Your task to perform on an android device: Open Youtube and go to the subscriptions tab Image 0: 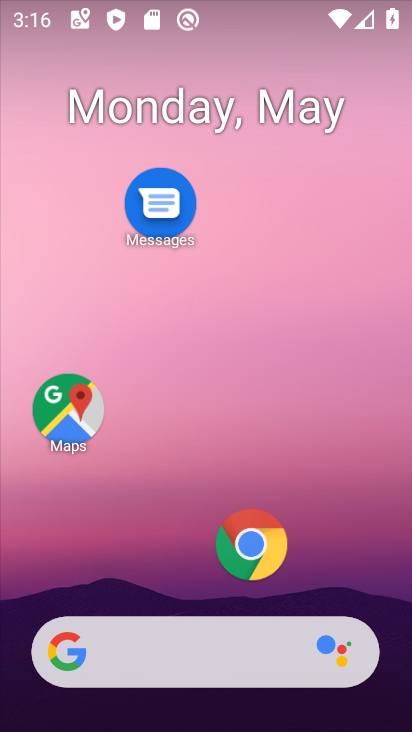
Step 0: drag from (183, 568) to (172, 256)
Your task to perform on an android device: Open Youtube and go to the subscriptions tab Image 1: 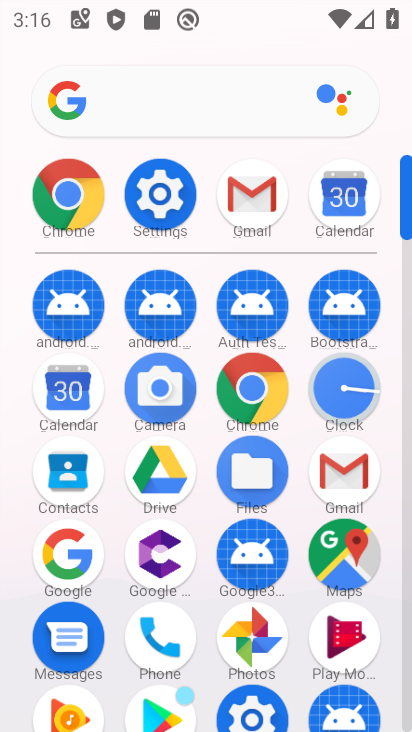
Step 1: drag from (209, 615) to (233, 236)
Your task to perform on an android device: Open Youtube and go to the subscriptions tab Image 2: 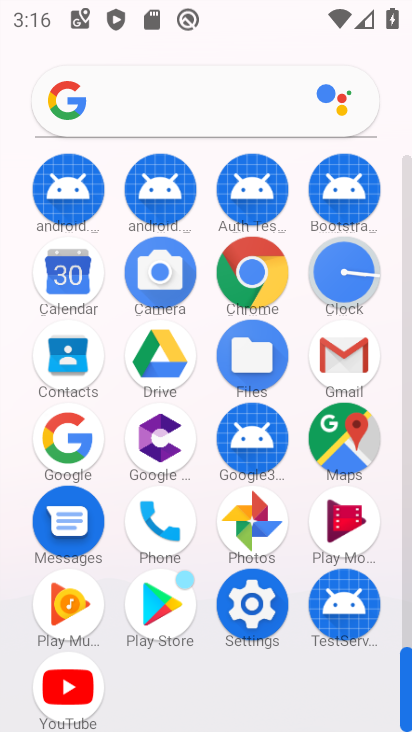
Step 2: click (65, 669)
Your task to perform on an android device: Open Youtube and go to the subscriptions tab Image 3: 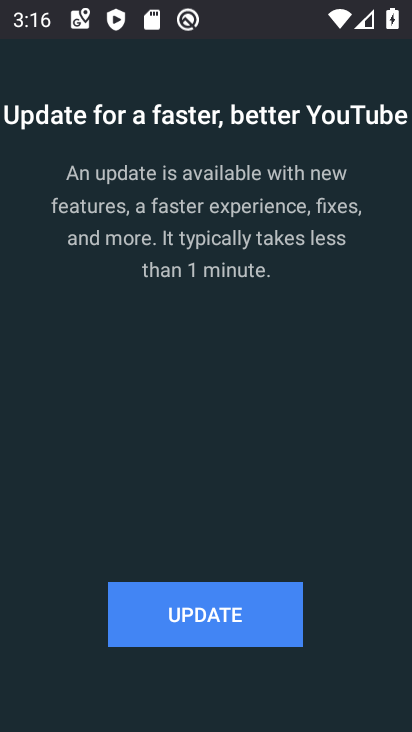
Step 3: click (198, 618)
Your task to perform on an android device: Open Youtube and go to the subscriptions tab Image 4: 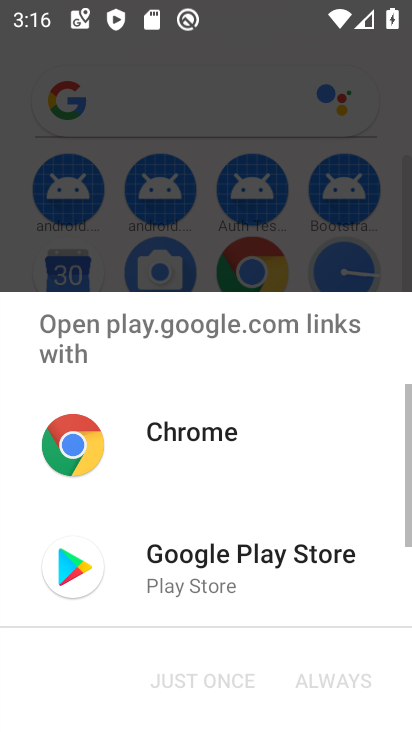
Step 4: click (198, 583)
Your task to perform on an android device: Open Youtube and go to the subscriptions tab Image 5: 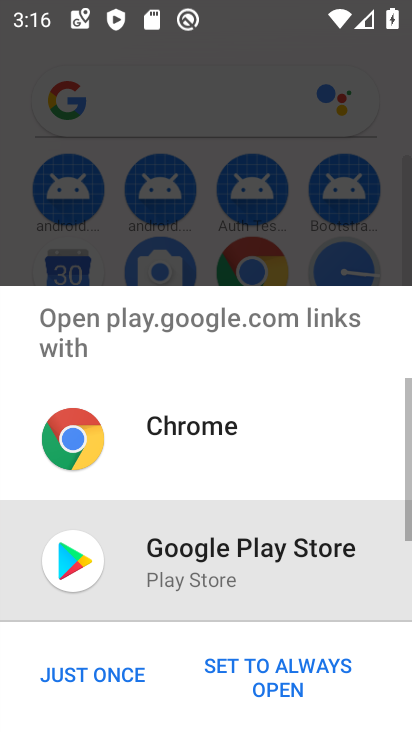
Step 5: click (121, 689)
Your task to perform on an android device: Open Youtube and go to the subscriptions tab Image 6: 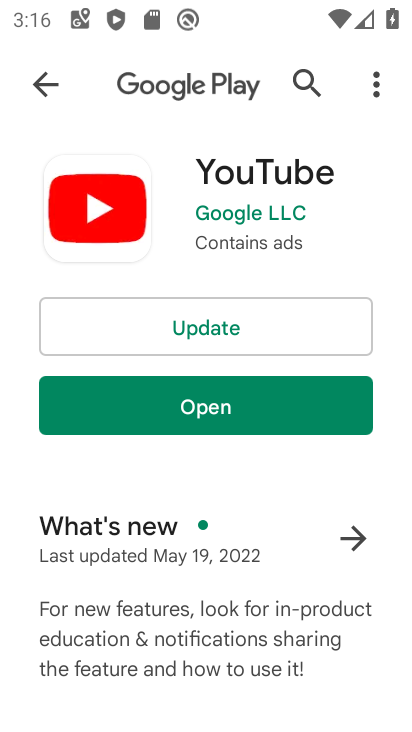
Step 6: click (281, 334)
Your task to perform on an android device: Open Youtube and go to the subscriptions tab Image 7: 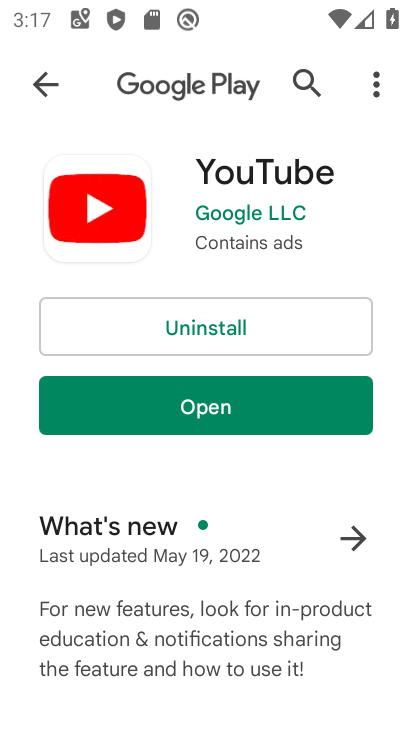
Step 7: click (274, 406)
Your task to perform on an android device: Open Youtube and go to the subscriptions tab Image 8: 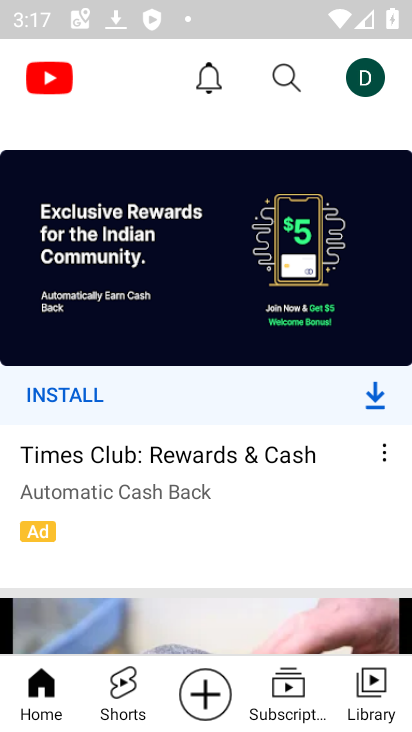
Step 8: click (285, 699)
Your task to perform on an android device: Open Youtube and go to the subscriptions tab Image 9: 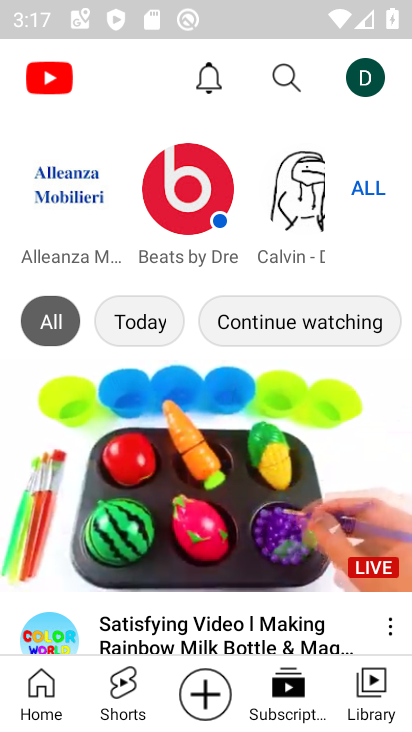
Step 9: task complete